Your task to perform on an android device: open sync settings in chrome Image 0: 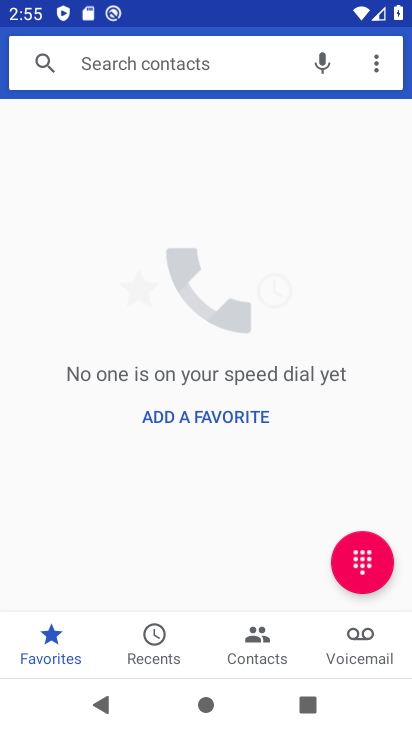
Step 0: press home button
Your task to perform on an android device: open sync settings in chrome Image 1: 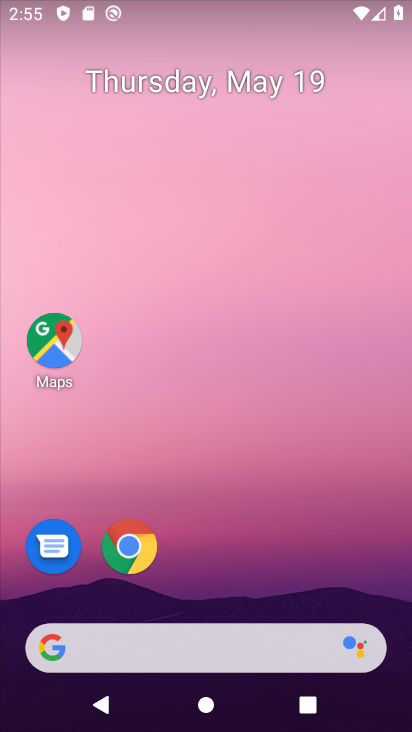
Step 1: click (130, 552)
Your task to perform on an android device: open sync settings in chrome Image 2: 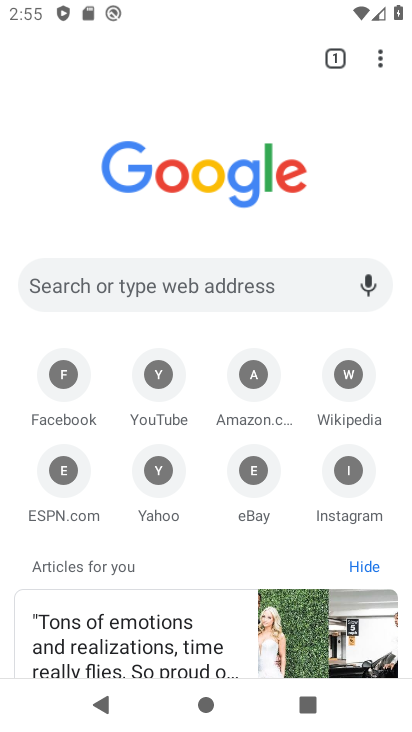
Step 2: click (388, 54)
Your task to perform on an android device: open sync settings in chrome Image 3: 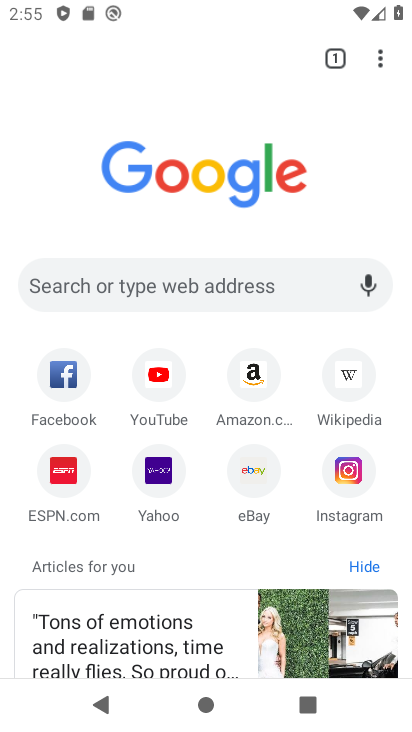
Step 3: click (388, 51)
Your task to perform on an android device: open sync settings in chrome Image 4: 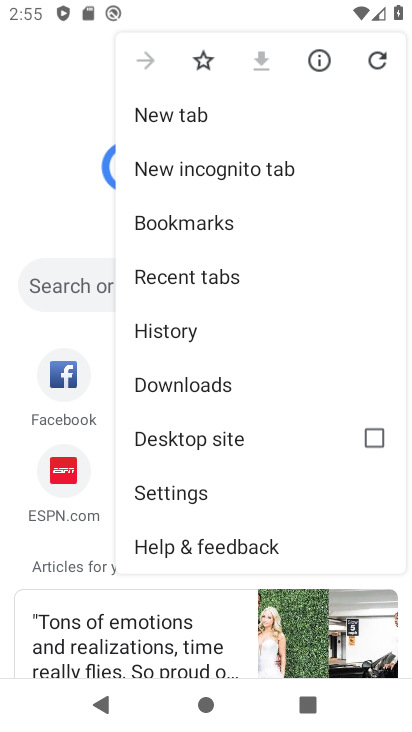
Step 4: click (203, 500)
Your task to perform on an android device: open sync settings in chrome Image 5: 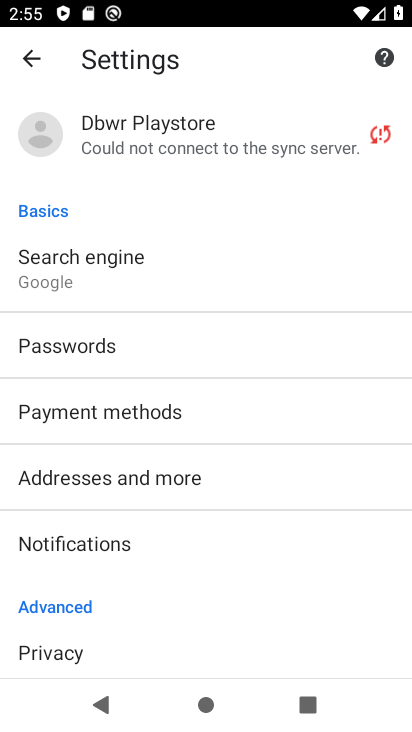
Step 5: click (137, 160)
Your task to perform on an android device: open sync settings in chrome Image 6: 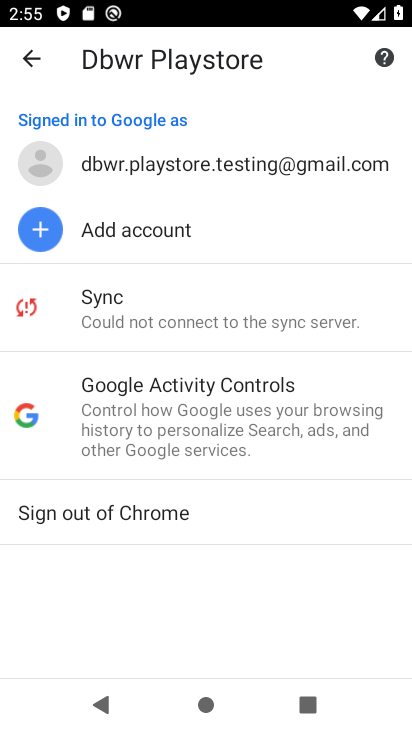
Step 6: click (154, 316)
Your task to perform on an android device: open sync settings in chrome Image 7: 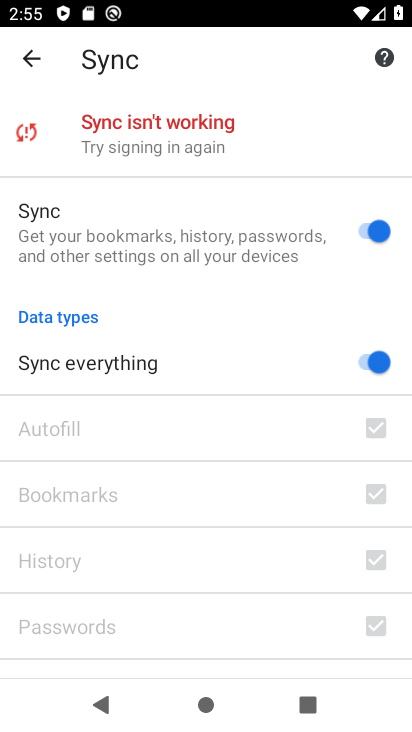
Step 7: task complete